Your task to perform on an android device: turn on the 24-hour format for clock Image 0: 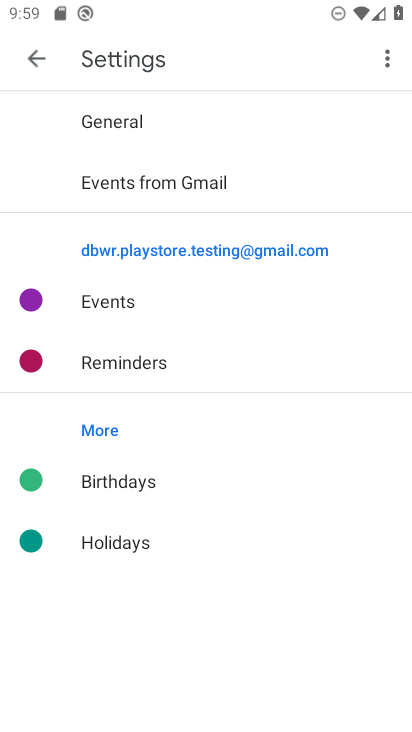
Step 0: press home button
Your task to perform on an android device: turn on the 24-hour format for clock Image 1: 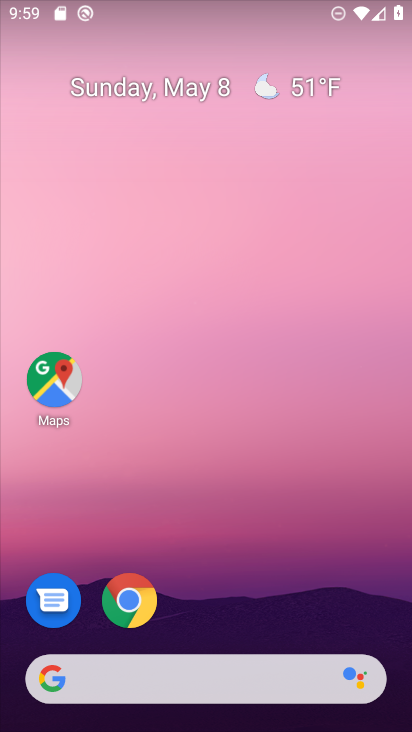
Step 1: drag from (254, 626) to (284, 4)
Your task to perform on an android device: turn on the 24-hour format for clock Image 2: 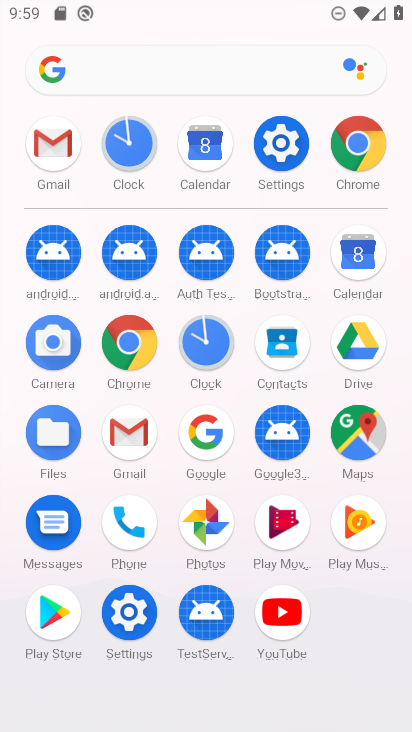
Step 2: click (132, 146)
Your task to perform on an android device: turn on the 24-hour format for clock Image 3: 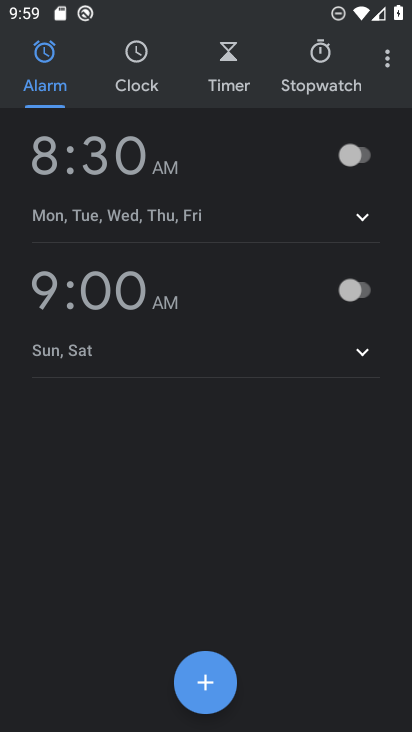
Step 3: click (390, 63)
Your task to perform on an android device: turn on the 24-hour format for clock Image 4: 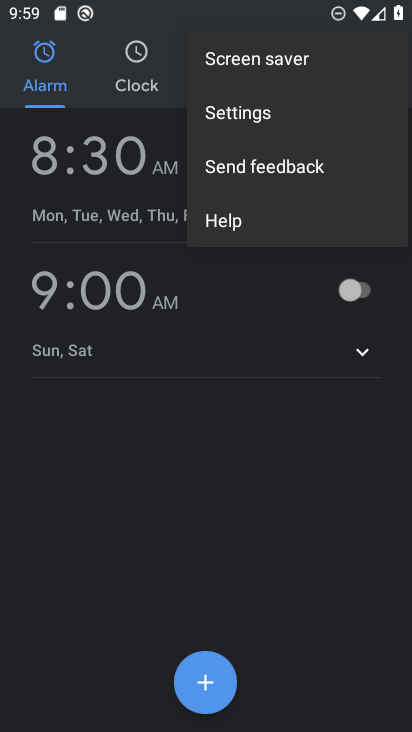
Step 4: click (259, 119)
Your task to perform on an android device: turn on the 24-hour format for clock Image 5: 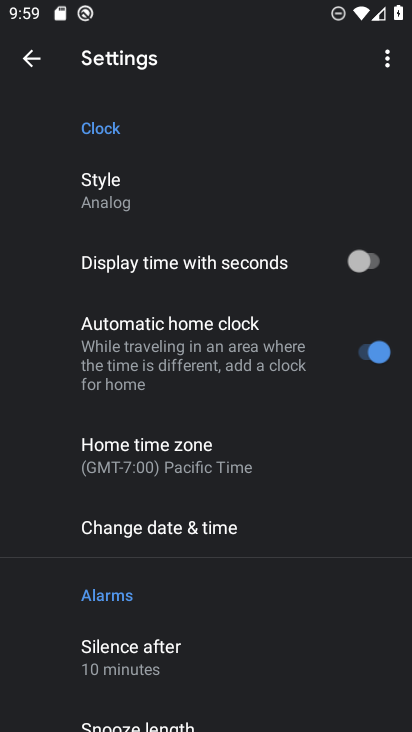
Step 5: click (166, 539)
Your task to perform on an android device: turn on the 24-hour format for clock Image 6: 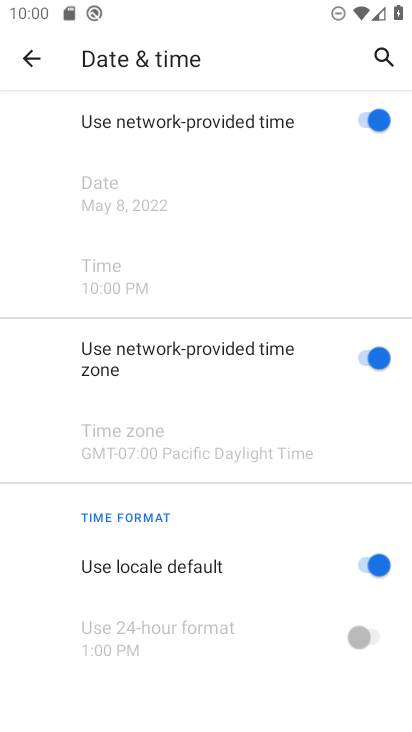
Step 6: click (378, 566)
Your task to perform on an android device: turn on the 24-hour format for clock Image 7: 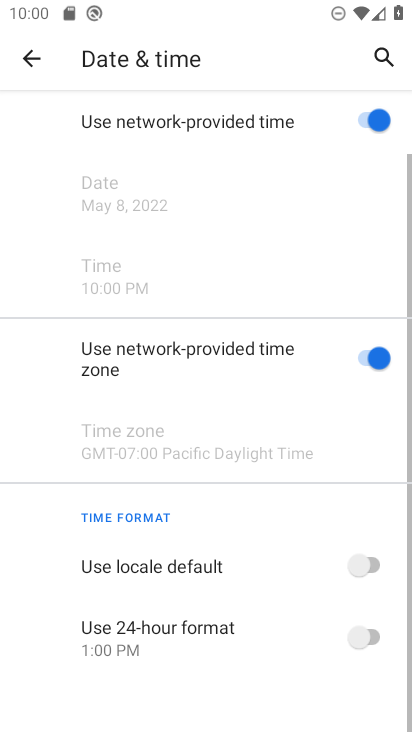
Step 7: click (371, 640)
Your task to perform on an android device: turn on the 24-hour format for clock Image 8: 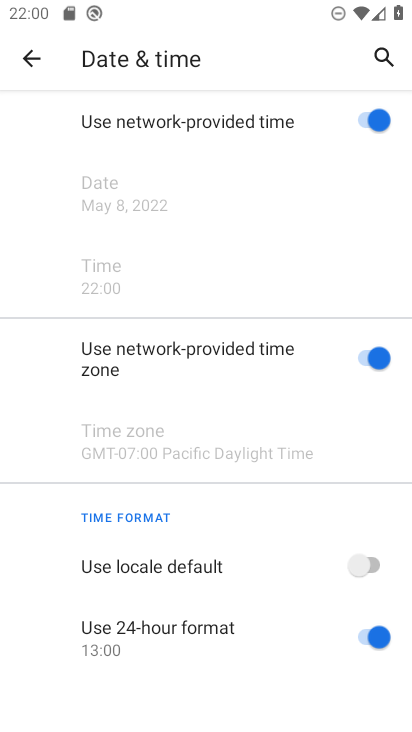
Step 8: task complete